Your task to perform on an android device: What's the weather? Image 0: 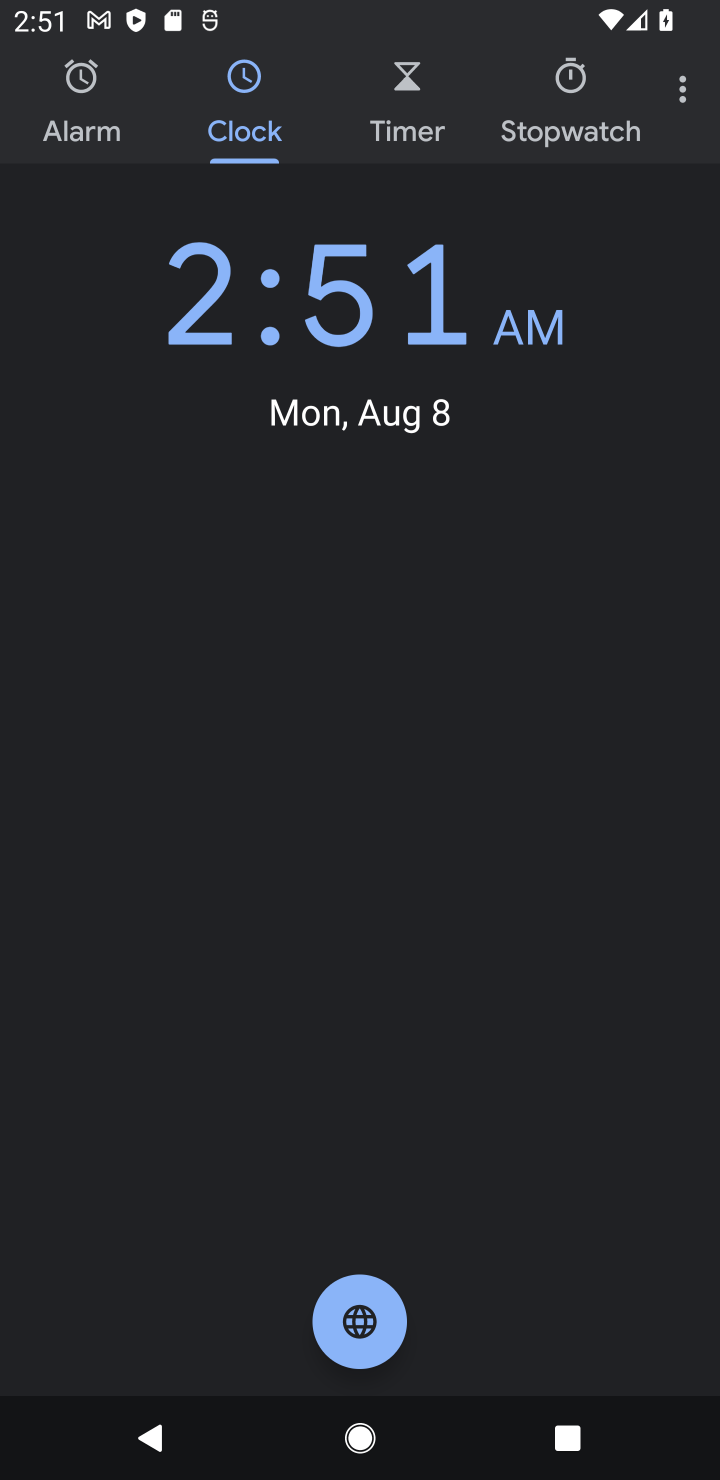
Step 0: press home button
Your task to perform on an android device: What's the weather? Image 1: 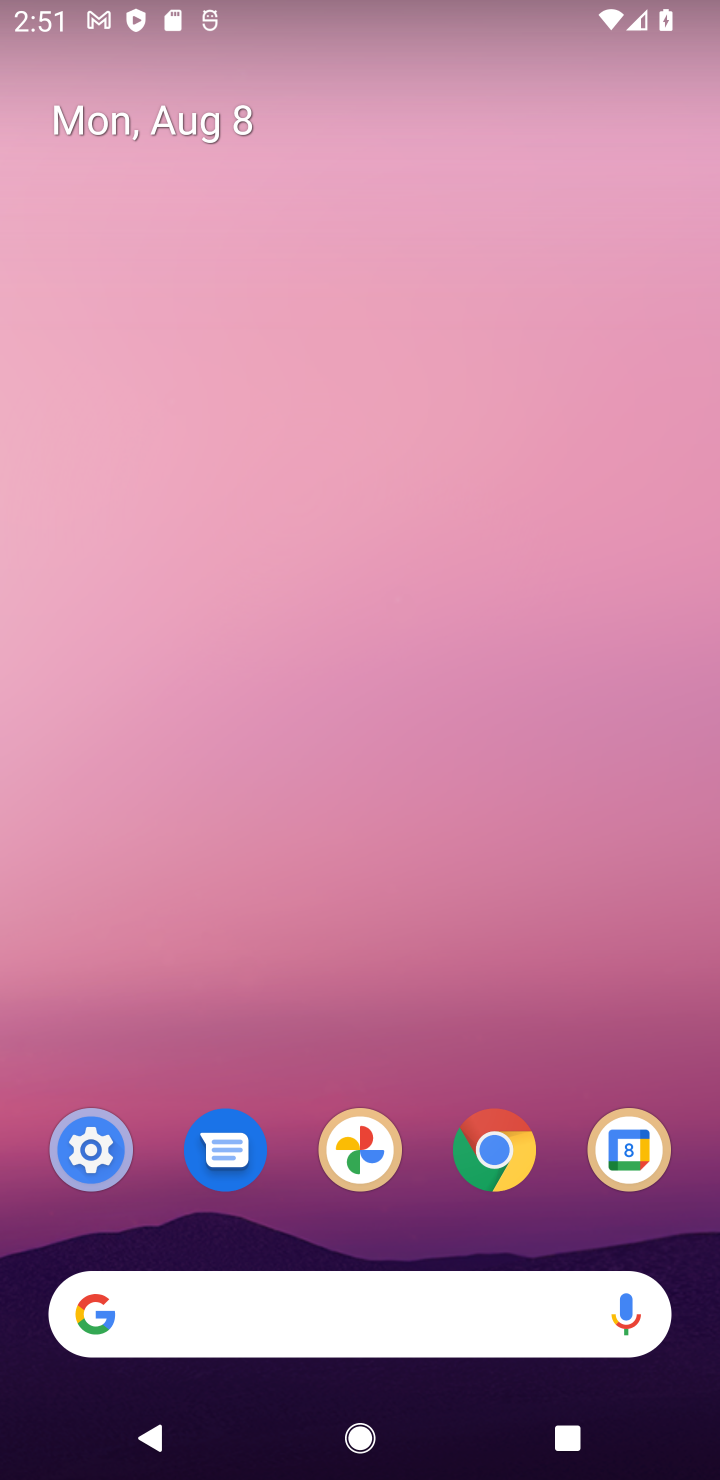
Step 1: click (340, 1331)
Your task to perform on an android device: What's the weather? Image 2: 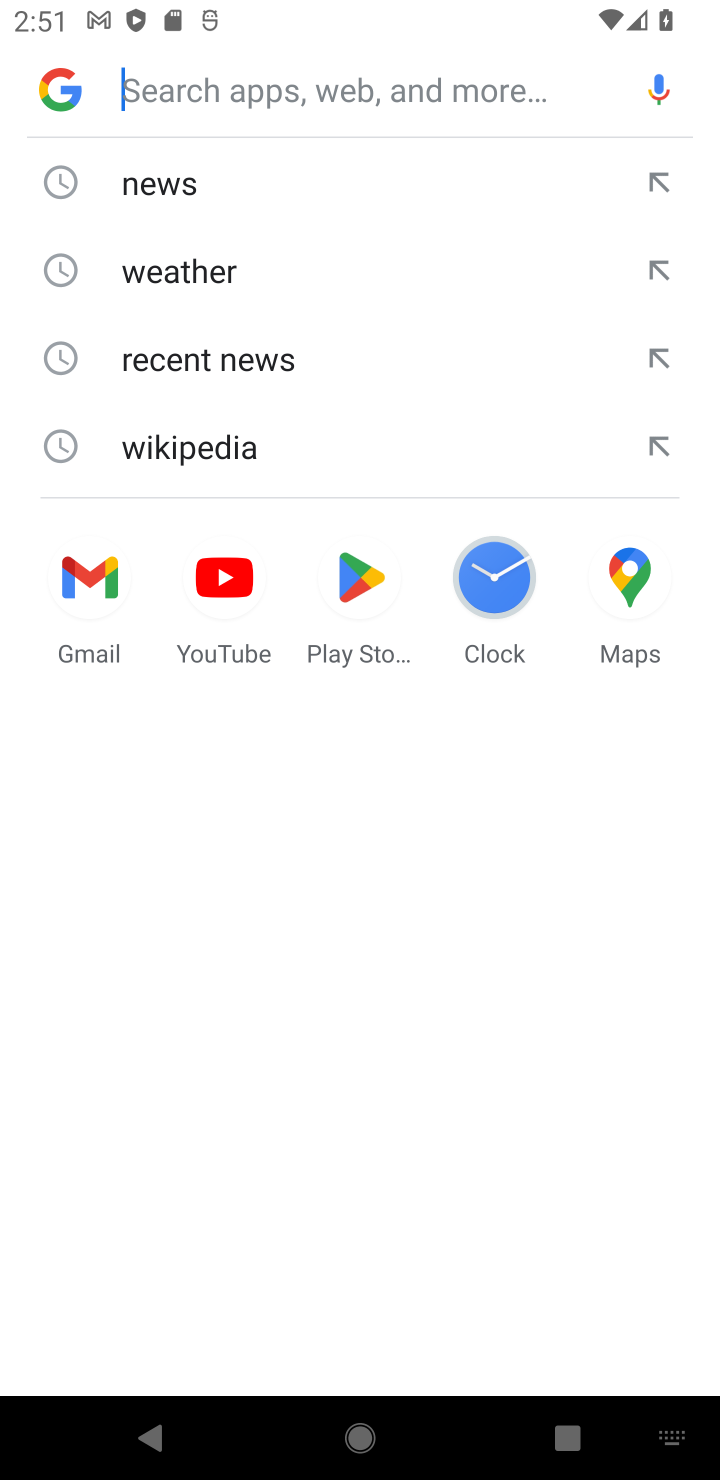
Step 2: click (155, 273)
Your task to perform on an android device: What's the weather? Image 3: 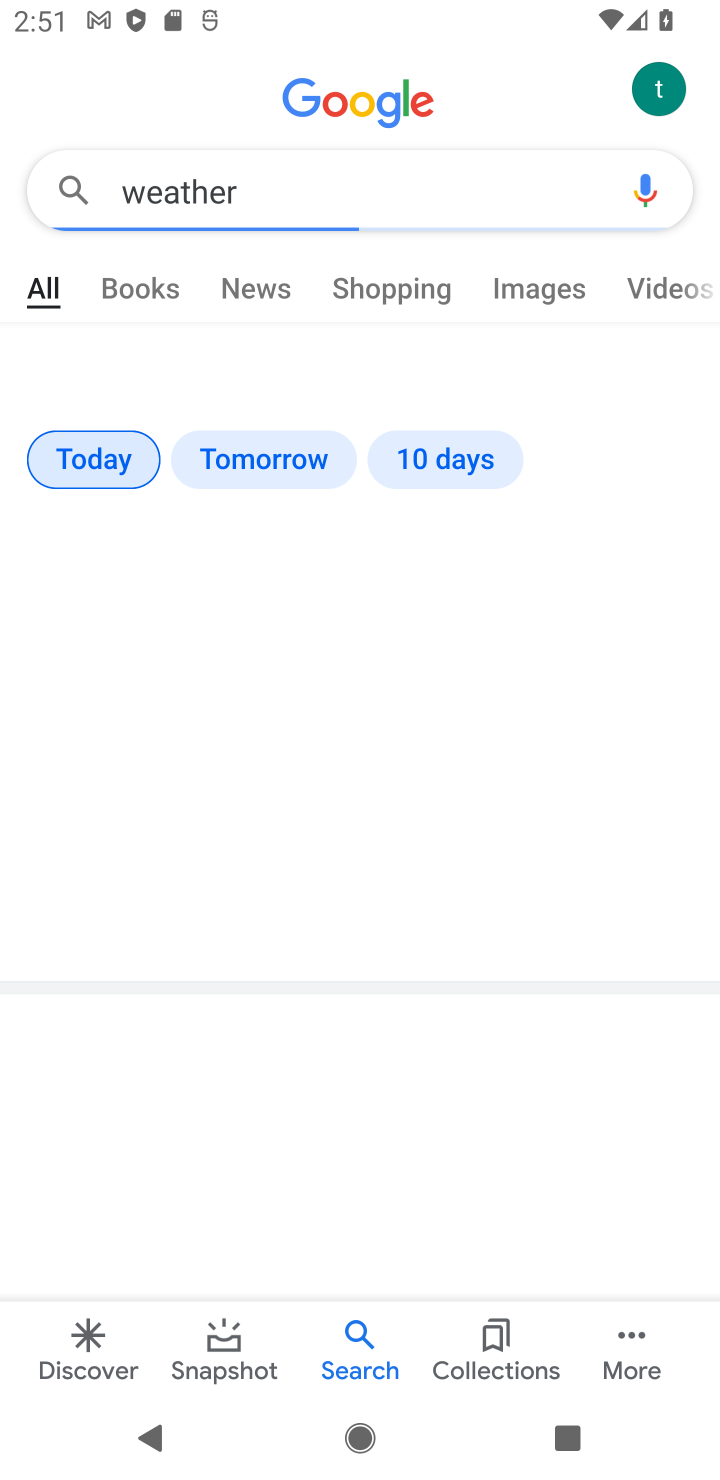
Step 3: task complete